Your task to perform on an android device: Show me popular games on the Play Store Image 0: 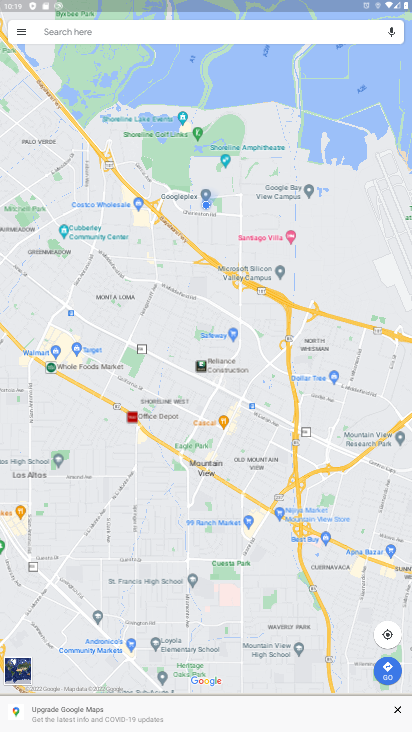
Step 0: press home button
Your task to perform on an android device: Show me popular games on the Play Store Image 1: 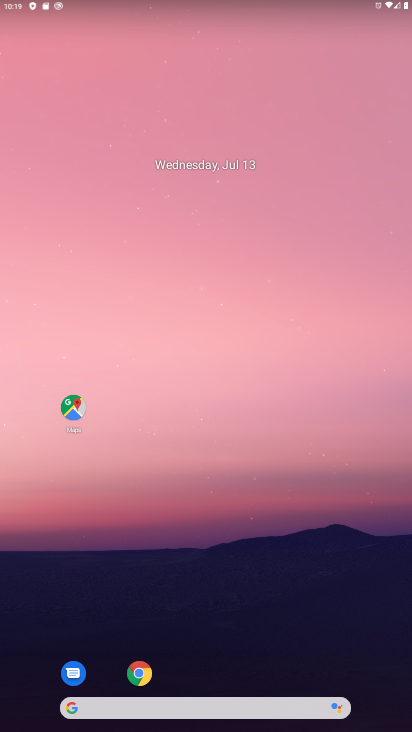
Step 1: drag from (193, 695) to (299, 186)
Your task to perform on an android device: Show me popular games on the Play Store Image 2: 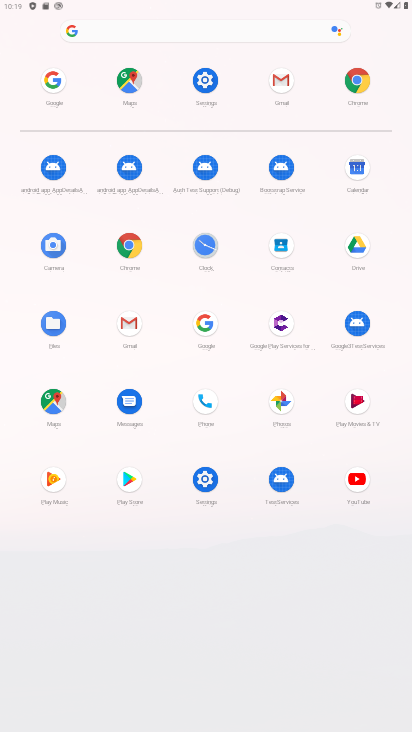
Step 2: click (132, 474)
Your task to perform on an android device: Show me popular games on the Play Store Image 3: 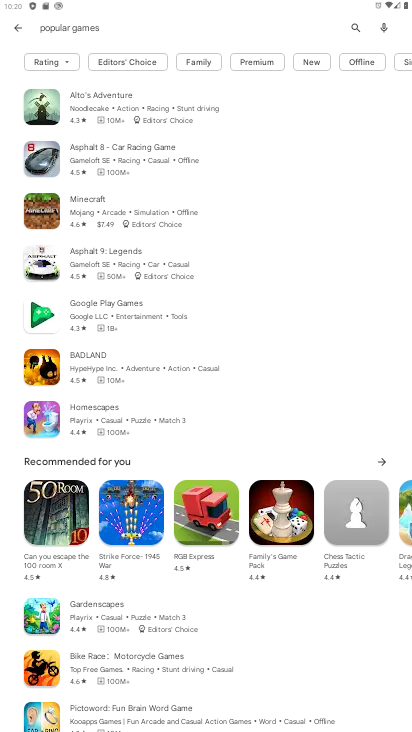
Step 3: task complete